Your task to perform on an android device: toggle notification dots Image 0: 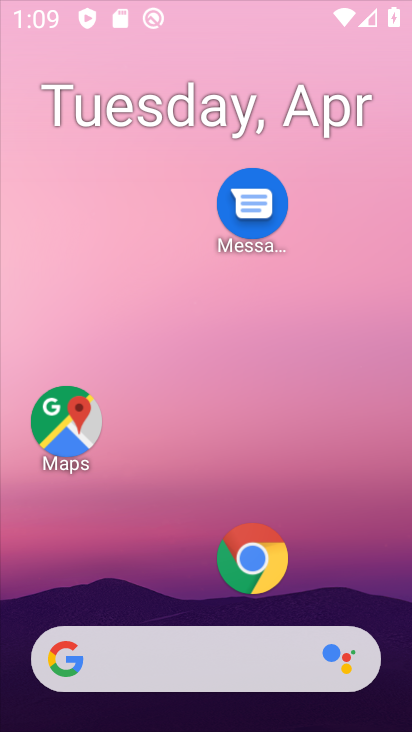
Step 0: click (283, 212)
Your task to perform on an android device: toggle notification dots Image 1: 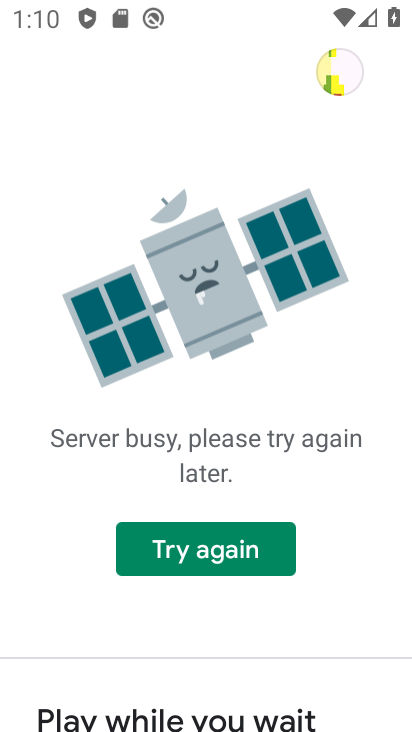
Step 1: drag from (243, 623) to (287, 230)
Your task to perform on an android device: toggle notification dots Image 2: 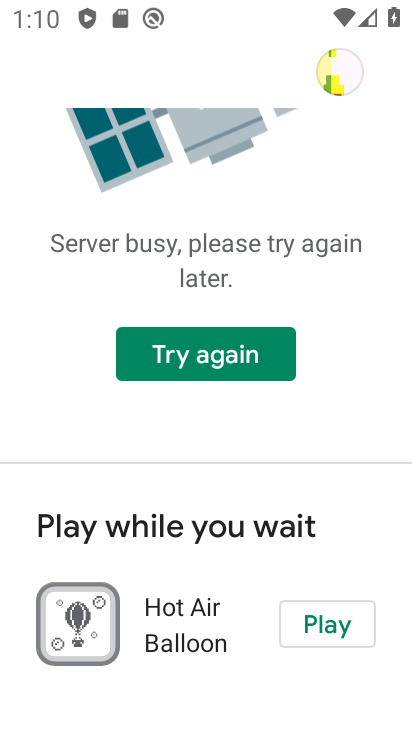
Step 2: press home button
Your task to perform on an android device: toggle notification dots Image 3: 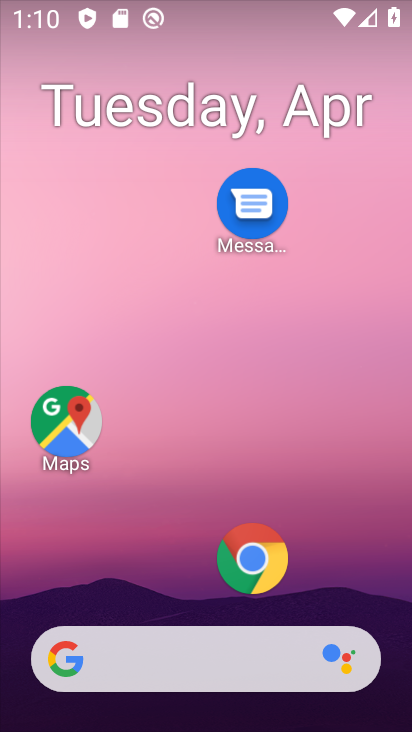
Step 3: drag from (201, 606) to (235, 113)
Your task to perform on an android device: toggle notification dots Image 4: 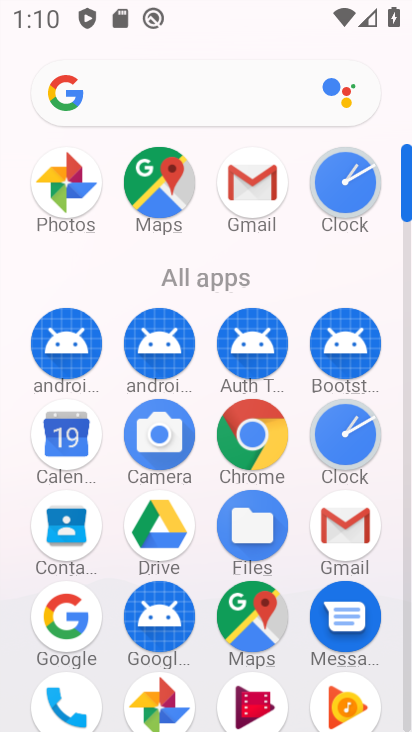
Step 4: drag from (196, 618) to (216, 73)
Your task to perform on an android device: toggle notification dots Image 5: 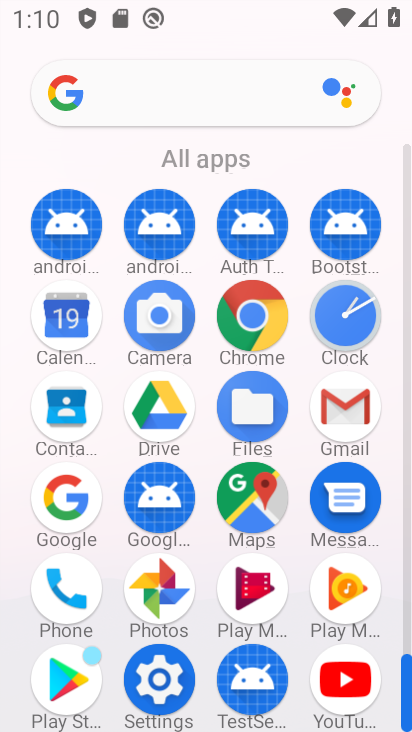
Step 5: click (175, 674)
Your task to perform on an android device: toggle notification dots Image 6: 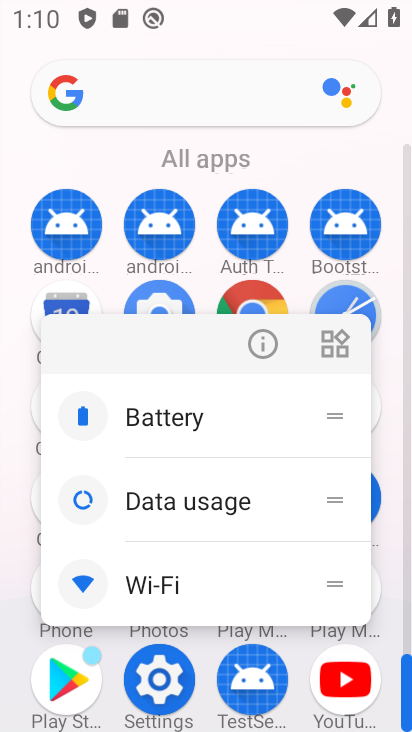
Step 6: click (263, 334)
Your task to perform on an android device: toggle notification dots Image 7: 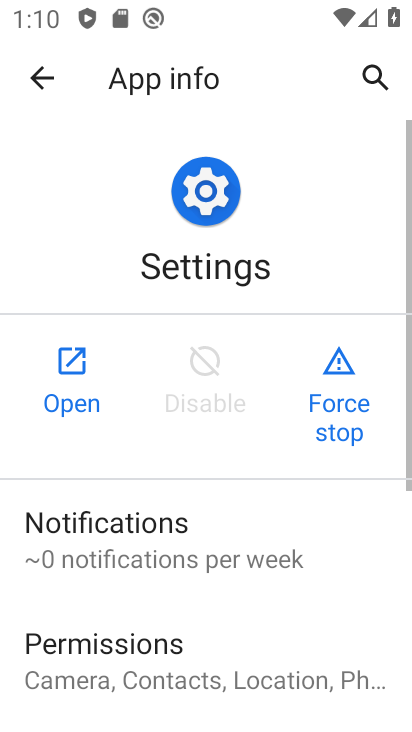
Step 7: click (60, 351)
Your task to perform on an android device: toggle notification dots Image 8: 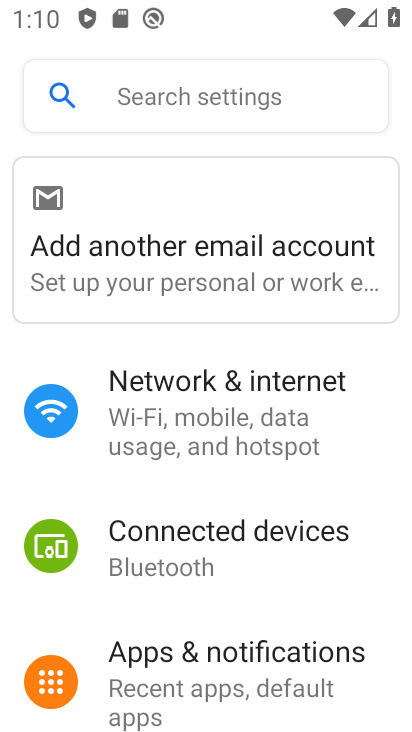
Step 8: click (195, 650)
Your task to perform on an android device: toggle notification dots Image 9: 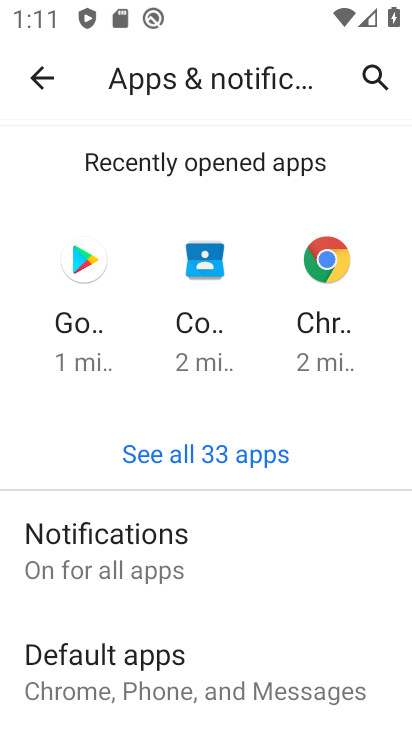
Step 9: click (185, 535)
Your task to perform on an android device: toggle notification dots Image 10: 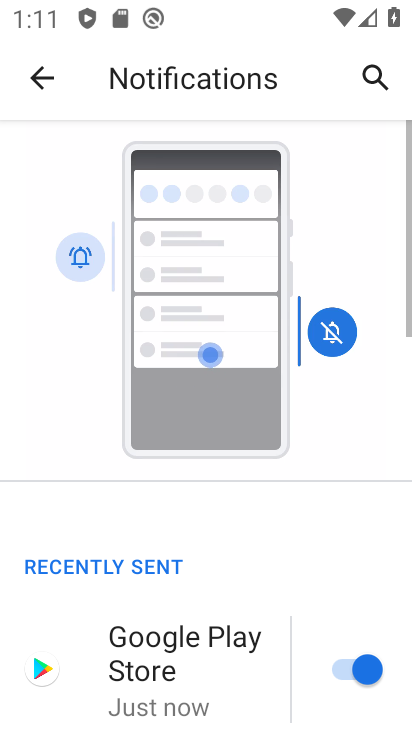
Step 10: drag from (282, 588) to (353, 90)
Your task to perform on an android device: toggle notification dots Image 11: 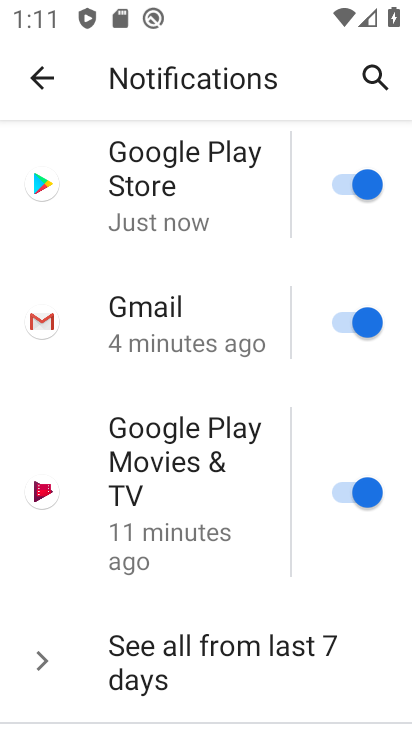
Step 11: drag from (261, 577) to (324, 151)
Your task to perform on an android device: toggle notification dots Image 12: 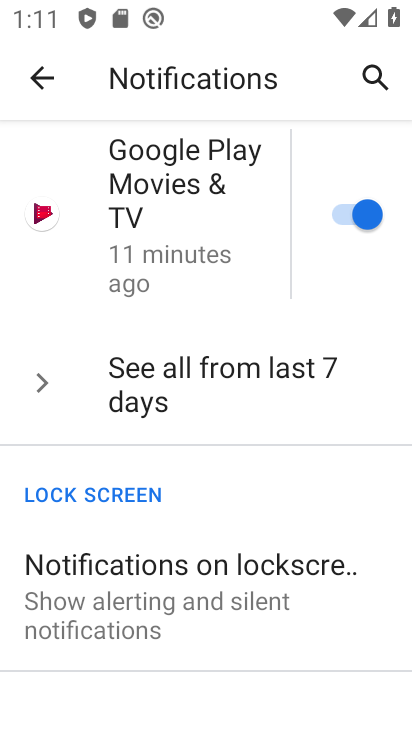
Step 12: drag from (228, 474) to (258, 291)
Your task to perform on an android device: toggle notification dots Image 13: 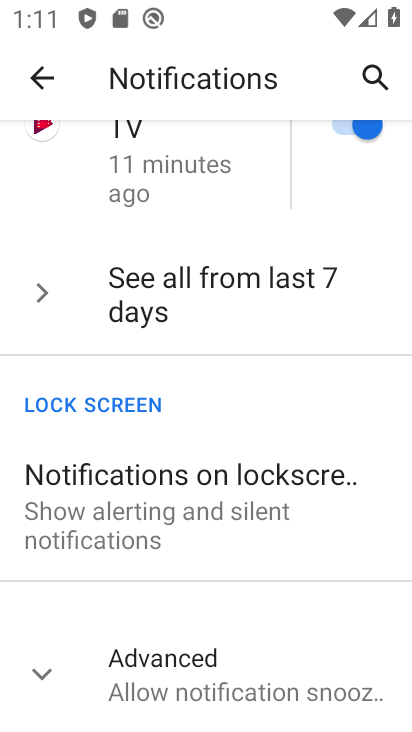
Step 13: click (185, 660)
Your task to perform on an android device: toggle notification dots Image 14: 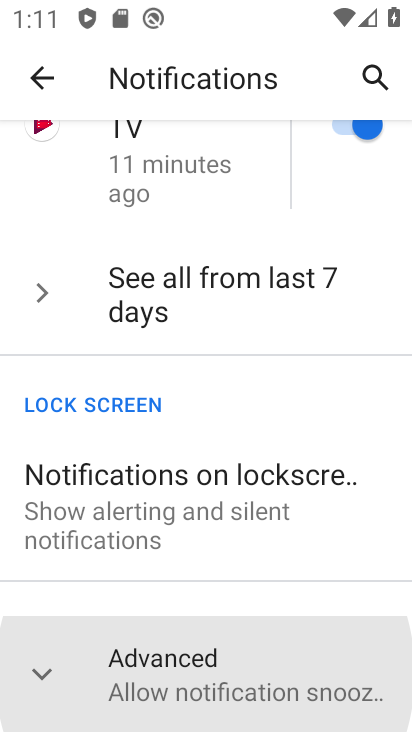
Step 14: drag from (189, 649) to (411, 278)
Your task to perform on an android device: toggle notification dots Image 15: 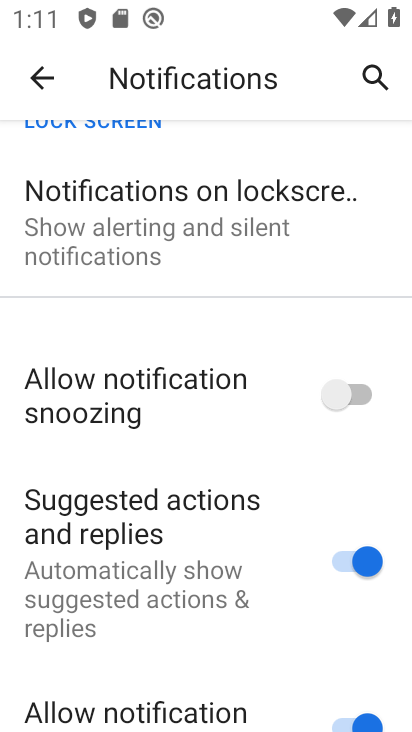
Step 15: click (327, 534)
Your task to perform on an android device: toggle notification dots Image 16: 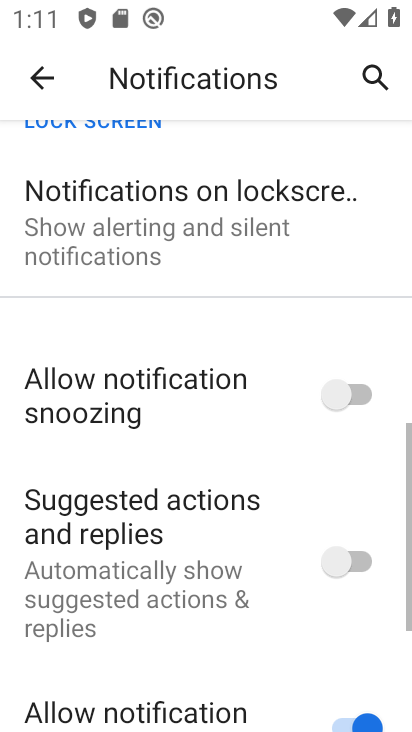
Step 16: click (328, 536)
Your task to perform on an android device: toggle notification dots Image 17: 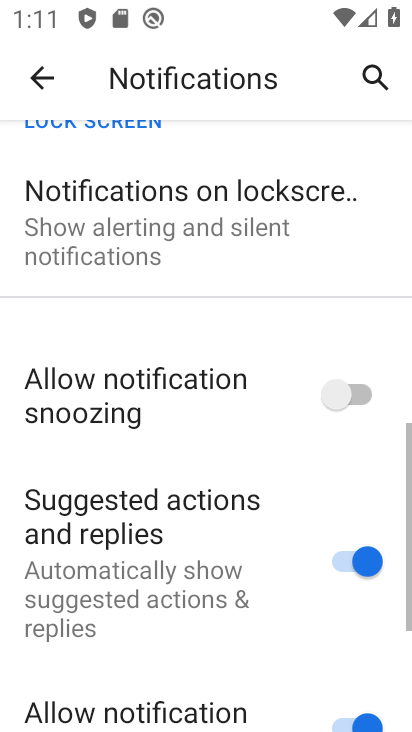
Step 17: click (343, 707)
Your task to perform on an android device: toggle notification dots Image 18: 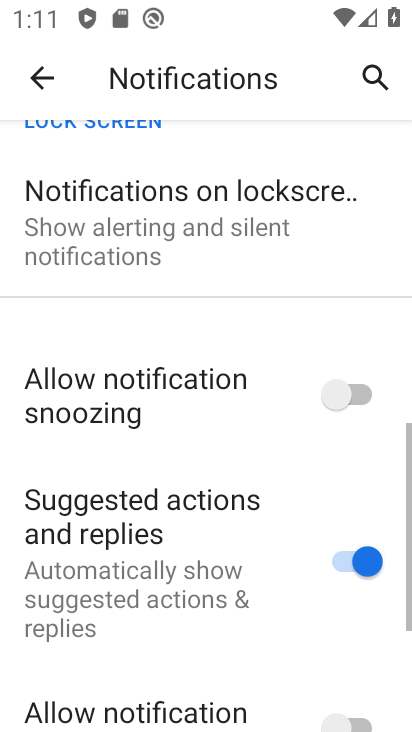
Step 18: task complete